Your task to perform on an android device: Show me productivity apps on the Play Store Image 0: 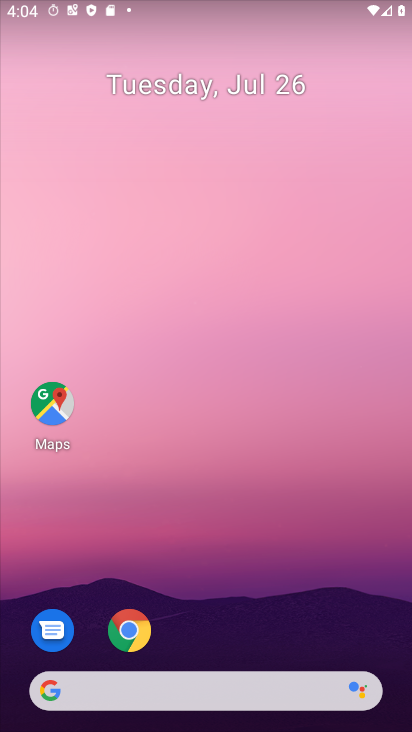
Step 0: drag from (217, 649) to (202, 127)
Your task to perform on an android device: Show me productivity apps on the Play Store Image 1: 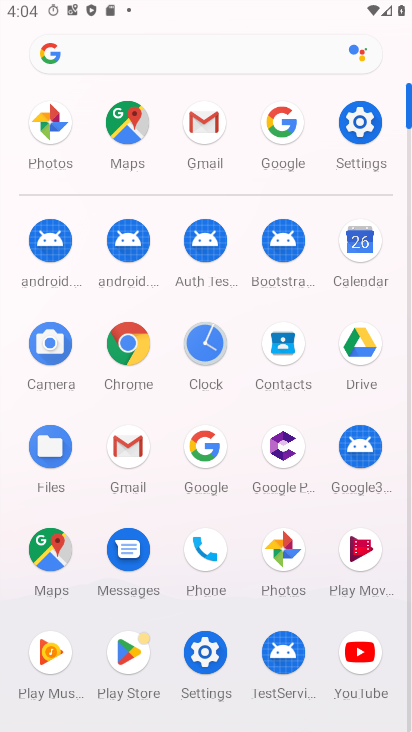
Step 1: click (125, 642)
Your task to perform on an android device: Show me productivity apps on the Play Store Image 2: 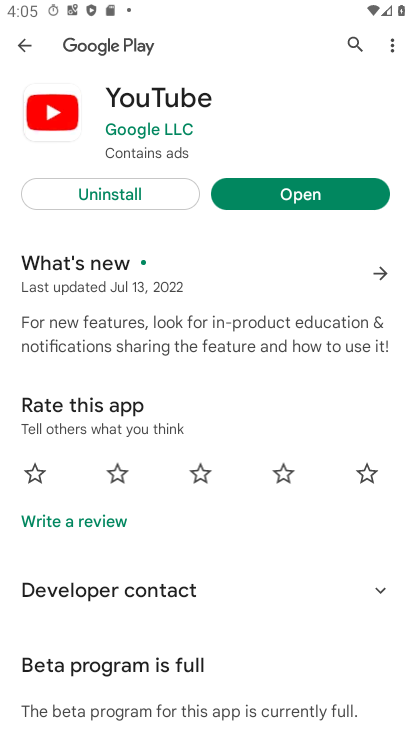
Step 2: click (24, 48)
Your task to perform on an android device: Show me productivity apps on the Play Store Image 3: 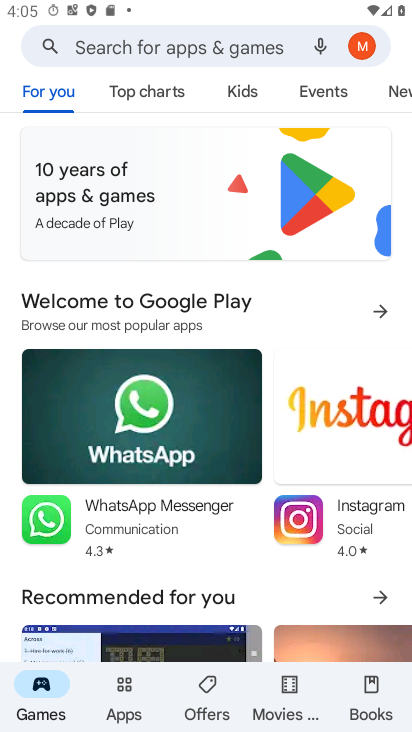
Step 3: click (120, 694)
Your task to perform on an android device: Show me productivity apps on the Play Store Image 4: 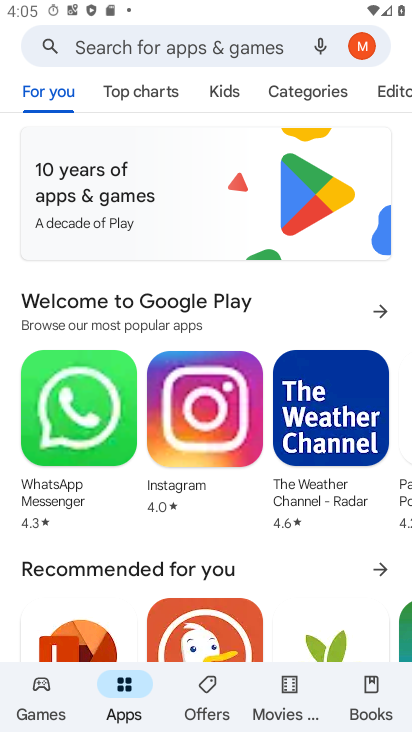
Step 4: click (321, 77)
Your task to perform on an android device: Show me productivity apps on the Play Store Image 5: 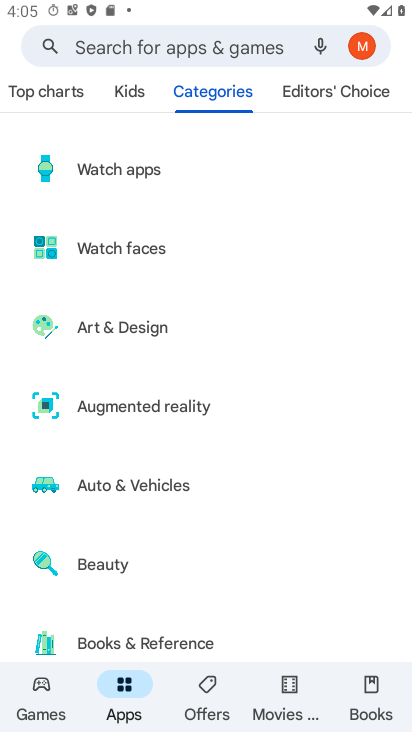
Step 5: drag from (265, 610) to (72, 27)
Your task to perform on an android device: Show me productivity apps on the Play Store Image 6: 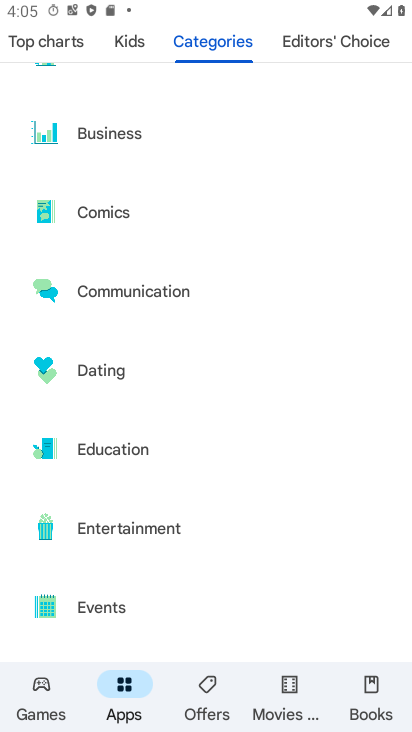
Step 6: drag from (215, 600) to (54, 13)
Your task to perform on an android device: Show me productivity apps on the Play Store Image 7: 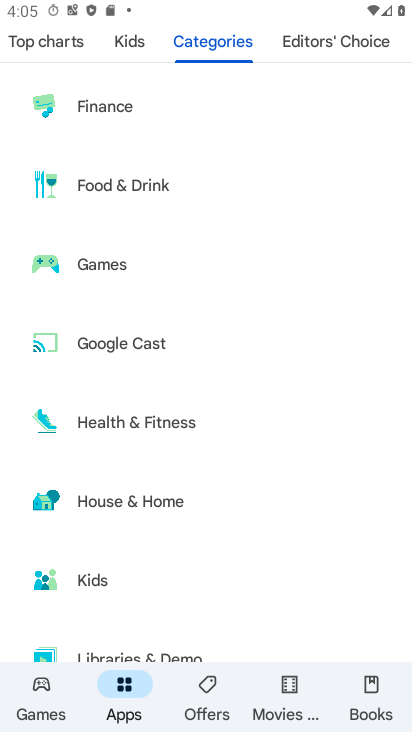
Step 7: drag from (183, 539) to (62, 49)
Your task to perform on an android device: Show me productivity apps on the Play Store Image 8: 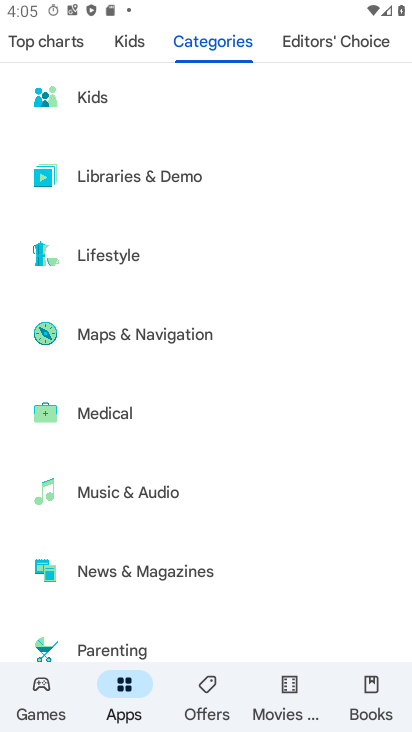
Step 8: drag from (186, 617) to (82, 31)
Your task to perform on an android device: Show me productivity apps on the Play Store Image 9: 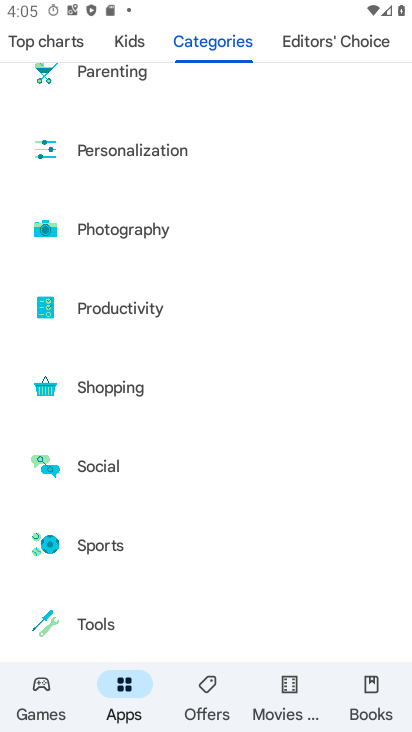
Step 9: click (151, 311)
Your task to perform on an android device: Show me productivity apps on the Play Store Image 10: 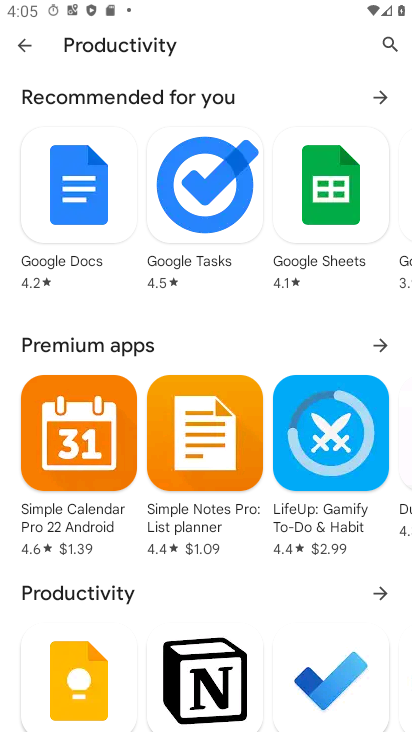
Step 10: task complete